Your task to perform on an android device: Go to internet settings Image 0: 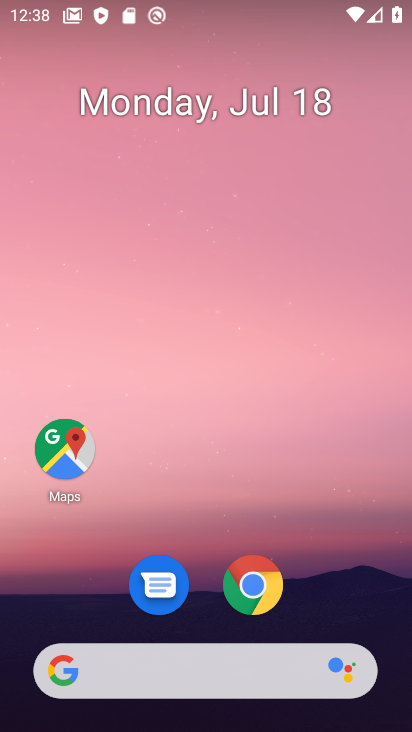
Step 0: drag from (169, 667) to (340, 136)
Your task to perform on an android device: Go to internet settings Image 1: 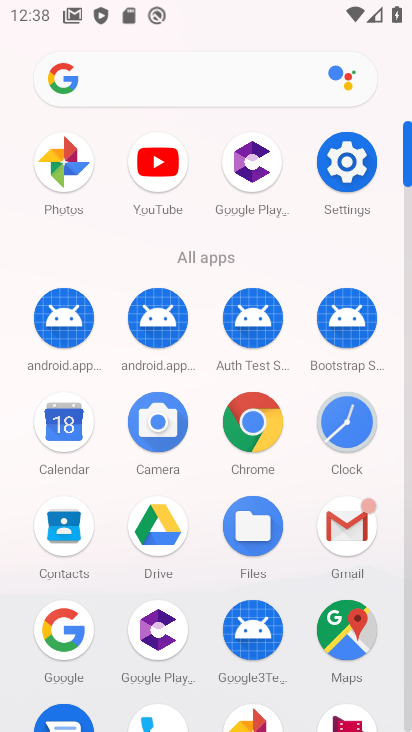
Step 1: click (340, 170)
Your task to perform on an android device: Go to internet settings Image 2: 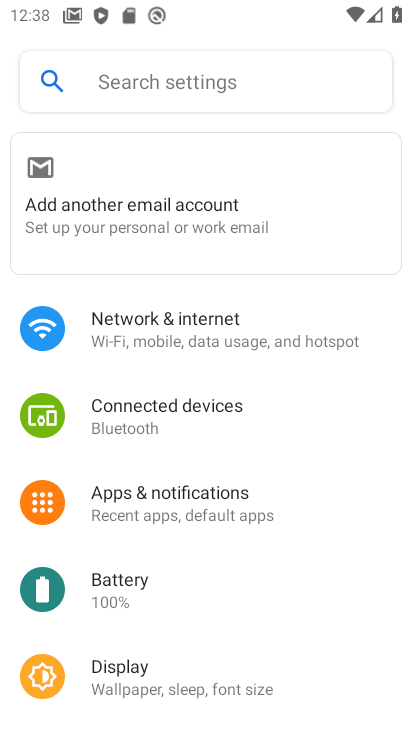
Step 2: click (146, 322)
Your task to perform on an android device: Go to internet settings Image 3: 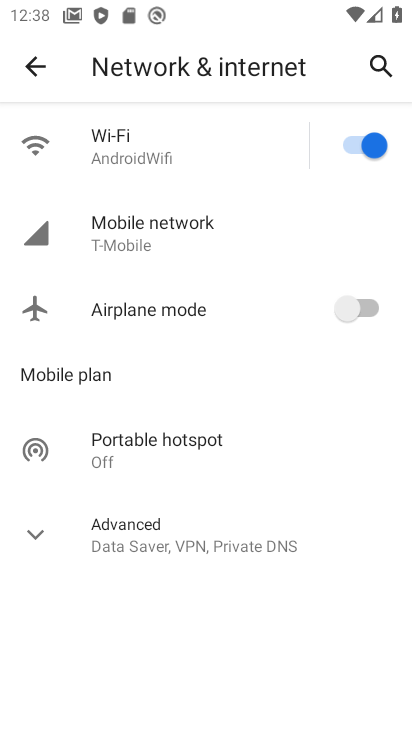
Step 3: task complete